Your task to perform on an android device: toggle pop-ups in chrome Image 0: 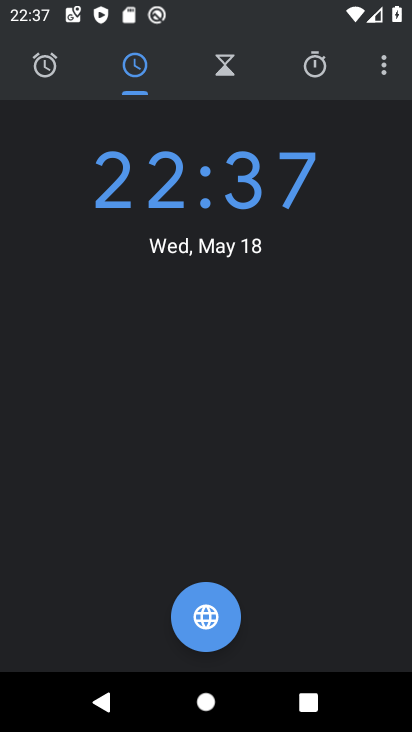
Step 0: task complete